Your task to perform on an android device: toggle sleep mode Image 0: 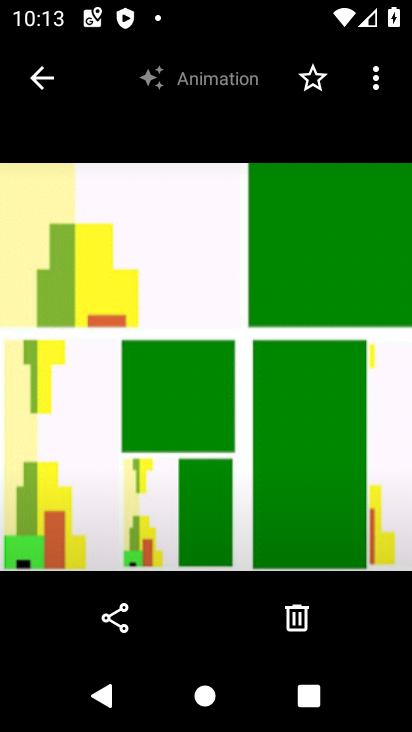
Step 0: press home button
Your task to perform on an android device: toggle sleep mode Image 1: 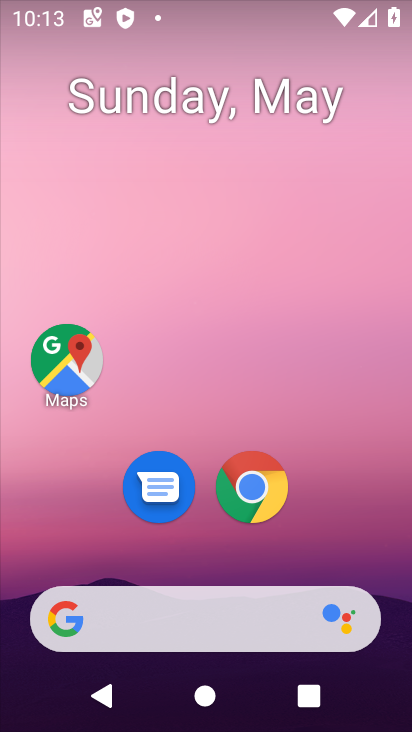
Step 1: drag from (381, 548) to (376, 219)
Your task to perform on an android device: toggle sleep mode Image 2: 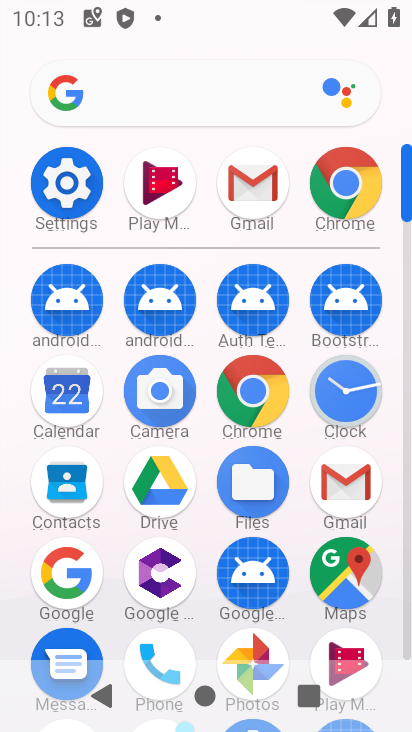
Step 2: click (79, 220)
Your task to perform on an android device: toggle sleep mode Image 3: 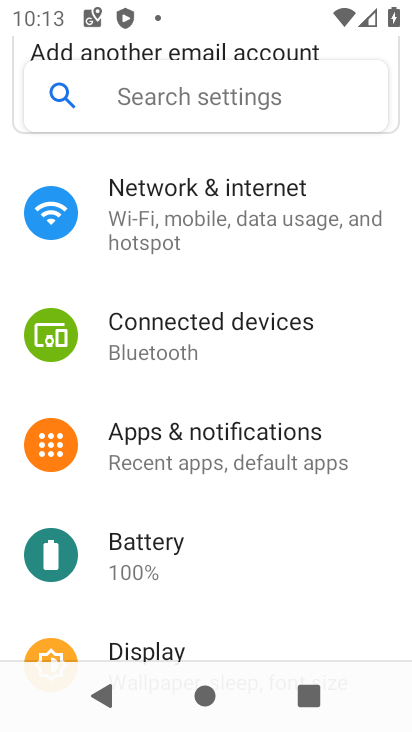
Step 3: drag from (365, 296) to (362, 456)
Your task to perform on an android device: toggle sleep mode Image 4: 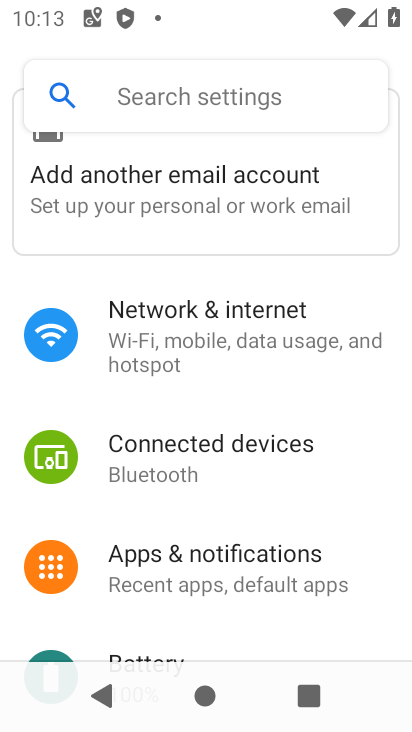
Step 4: drag from (362, 264) to (363, 481)
Your task to perform on an android device: toggle sleep mode Image 5: 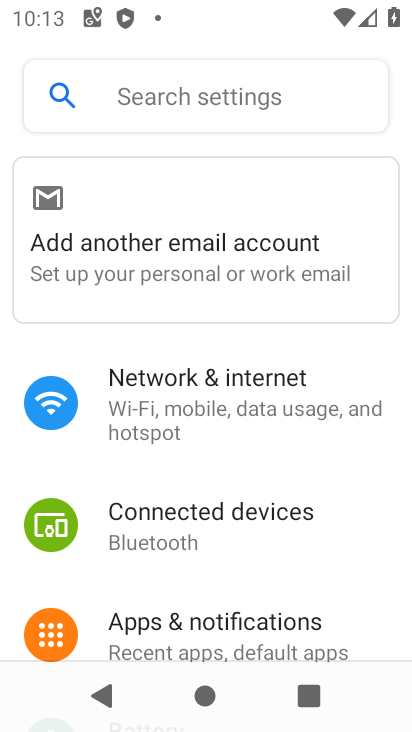
Step 5: drag from (354, 576) to (353, 397)
Your task to perform on an android device: toggle sleep mode Image 6: 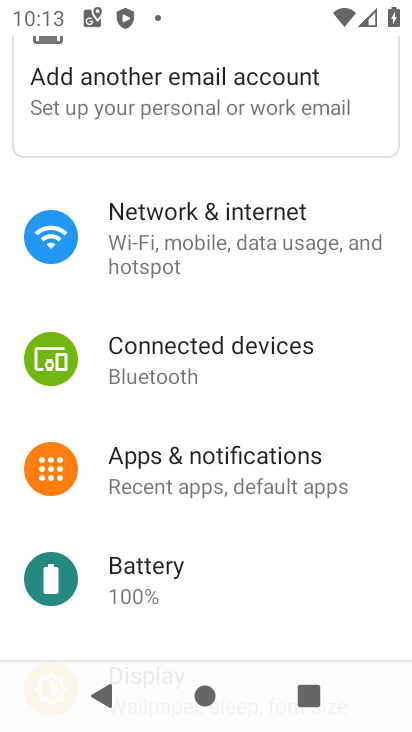
Step 6: drag from (360, 558) to (366, 420)
Your task to perform on an android device: toggle sleep mode Image 7: 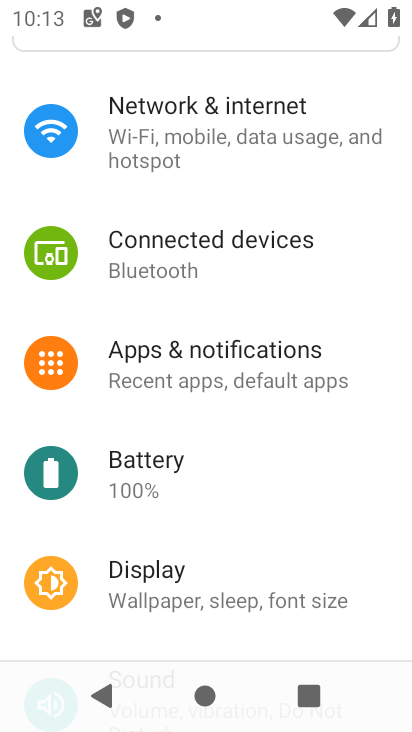
Step 7: drag from (339, 572) to (350, 458)
Your task to perform on an android device: toggle sleep mode Image 8: 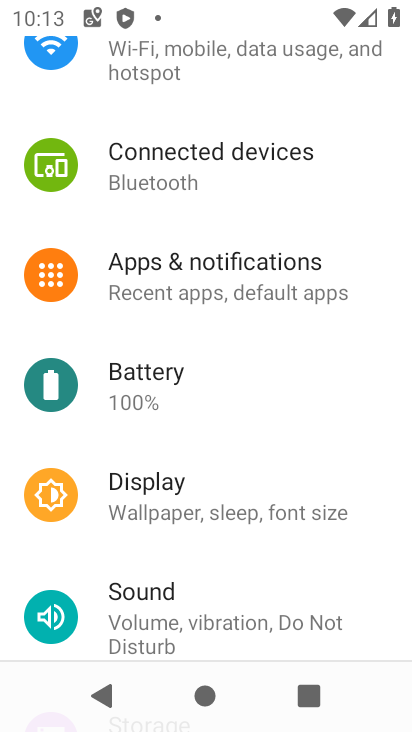
Step 8: drag from (336, 595) to (348, 505)
Your task to perform on an android device: toggle sleep mode Image 9: 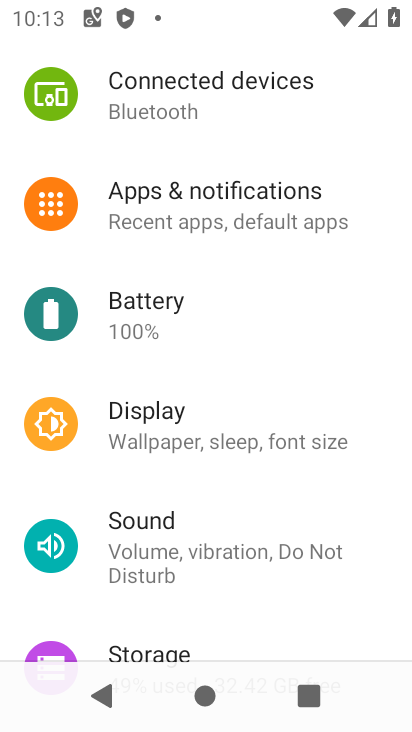
Step 9: drag from (343, 611) to (357, 485)
Your task to perform on an android device: toggle sleep mode Image 10: 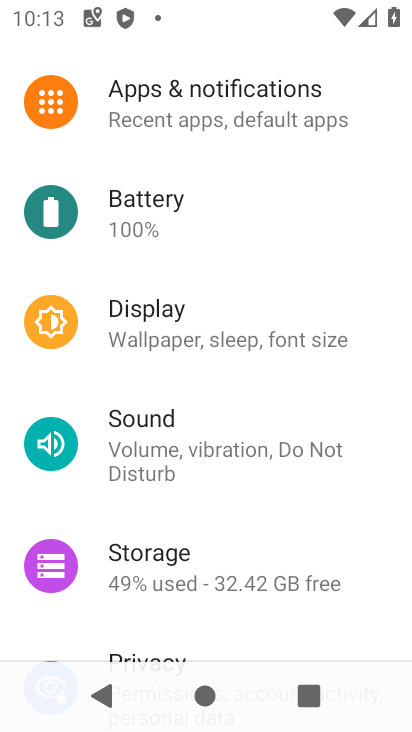
Step 10: drag from (358, 618) to (358, 526)
Your task to perform on an android device: toggle sleep mode Image 11: 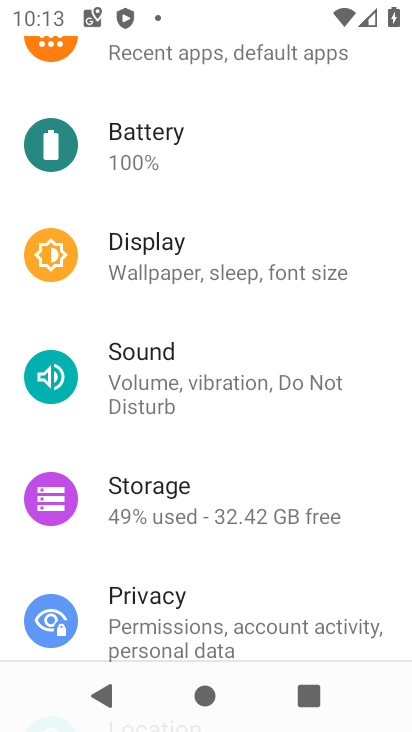
Step 11: drag from (357, 597) to (367, 492)
Your task to perform on an android device: toggle sleep mode Image 12: 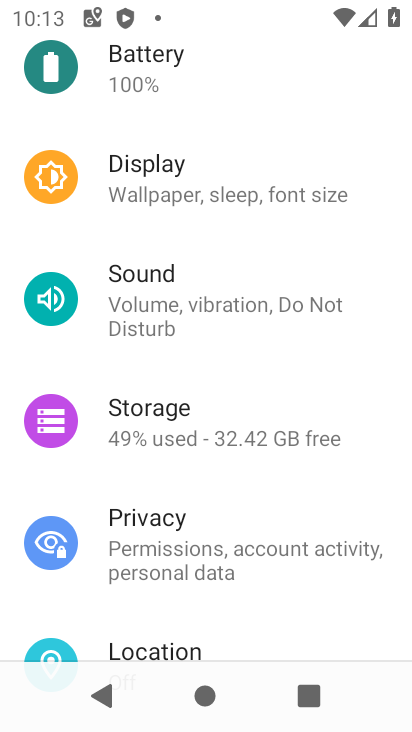
Step 12: drag from (359, 338) to (343, 518)
Your task to perform on an android device: toggle sleep mode Image 13: 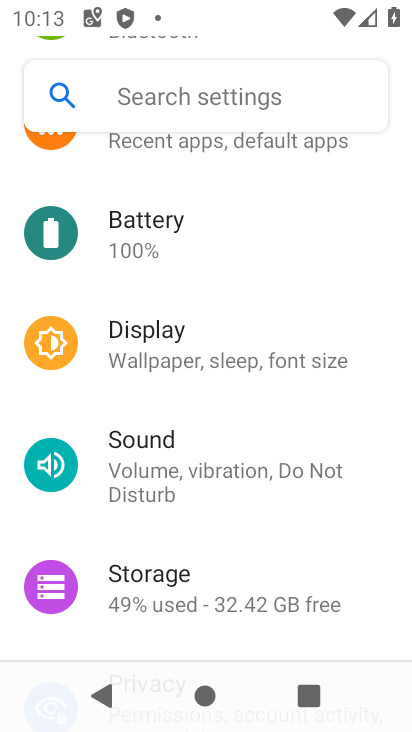
Step 13: drag from (369, 309) to (362, 487)
Your task to perform on an android device: toggle sleep mode Image 14: 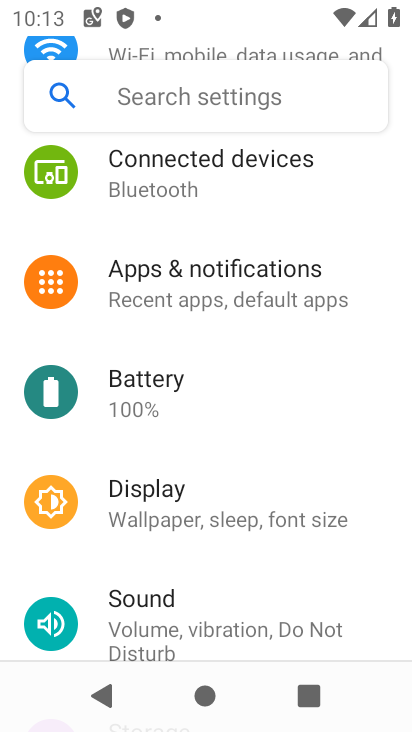
Step 14: click (278, 513)
Your task to perform on an android device: toggle sleep mode Image 15: 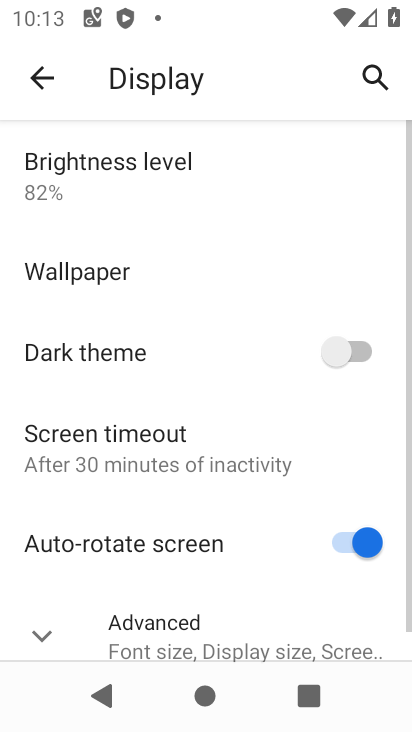
Step 15: click (195, 652)
Your task to perform on an android device: toggle sleep mode Image 16: 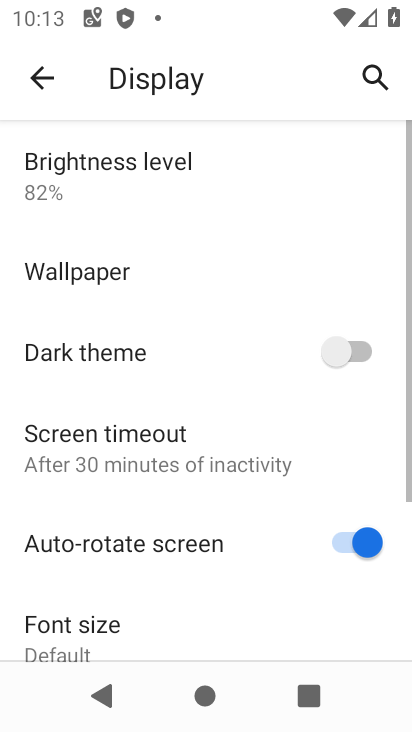
Step 16: task complete